Your task to perform on an android device: Go to Android settings Image 0: 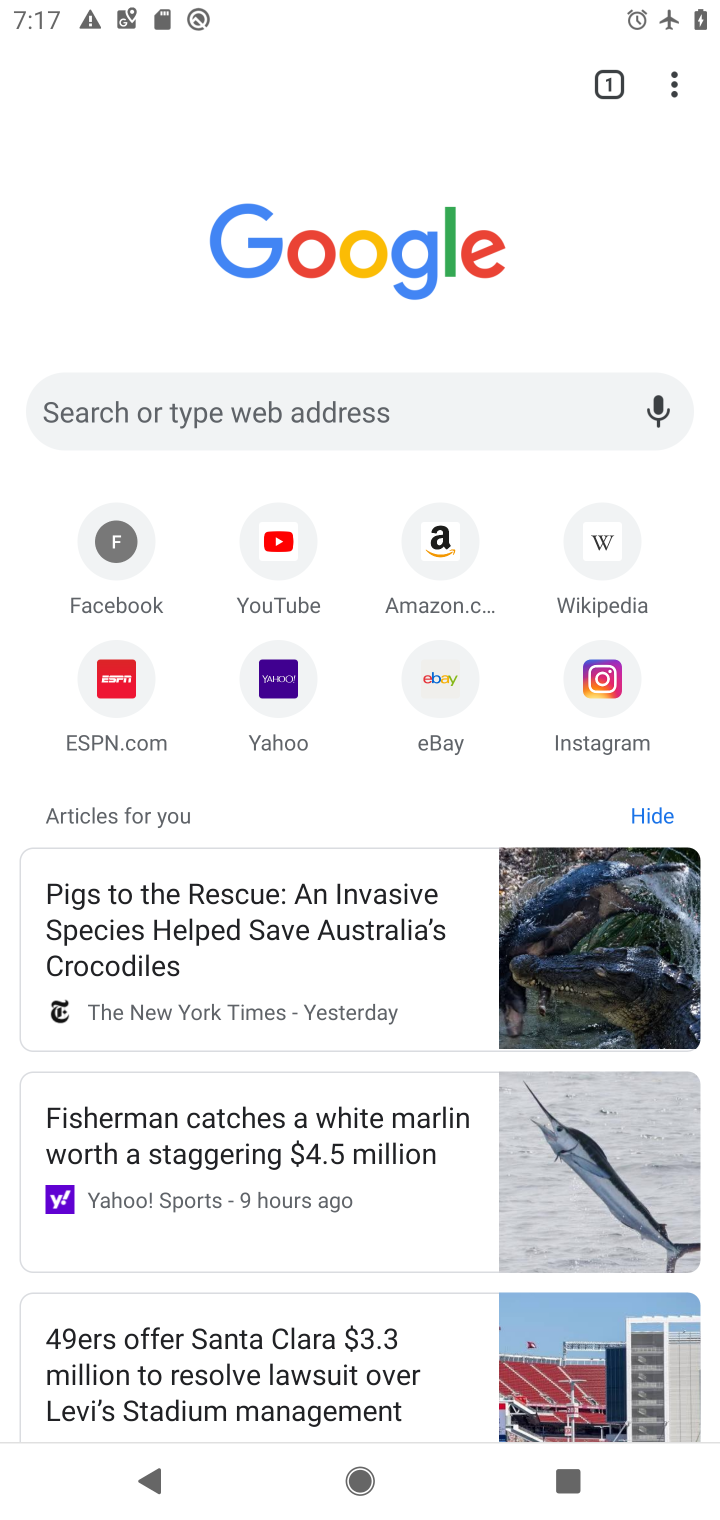
Step 0: press home button
Your task to perform on an android device: Go to Android settings Image 1: 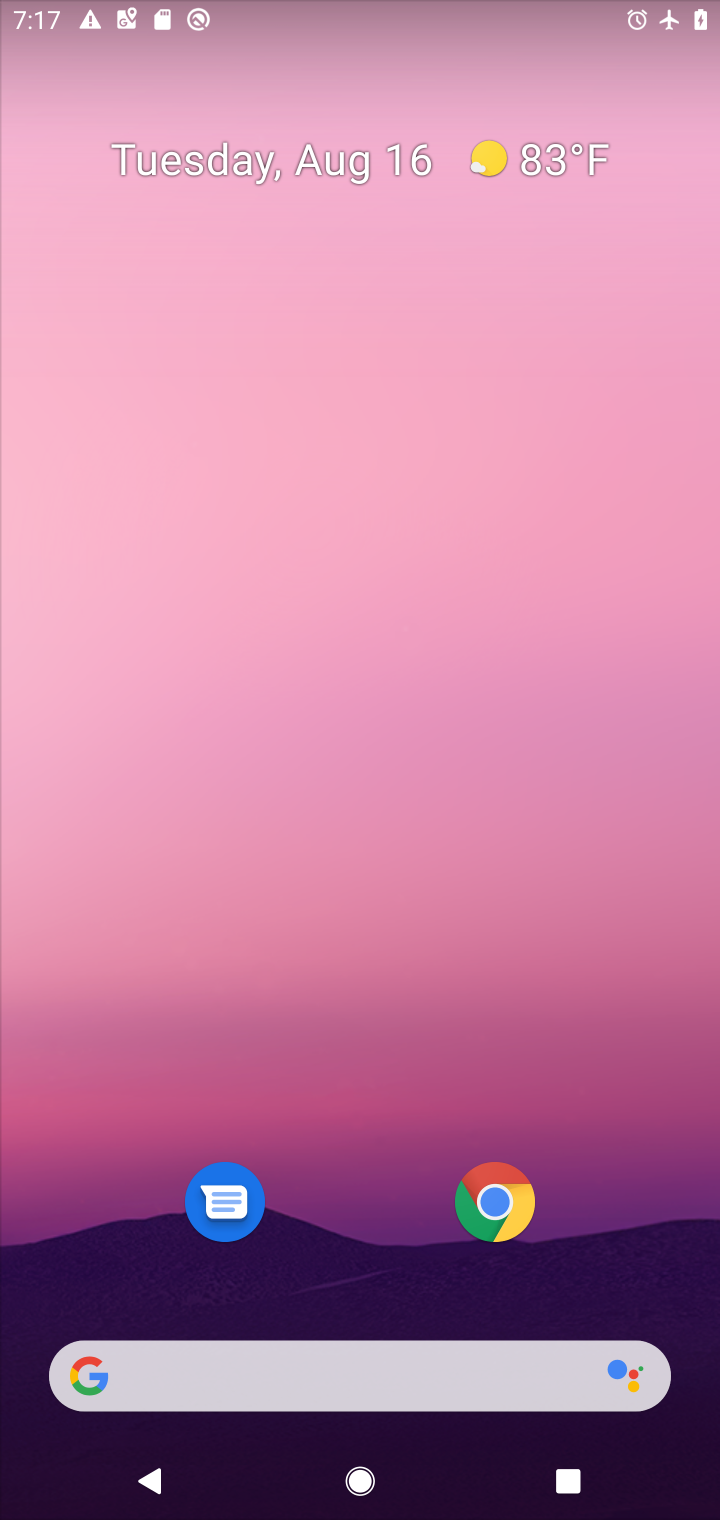
Step 1: drag from (641, 1194) to (335, 0)
Your task to perform on an android device: Go to Android settings Image 2: 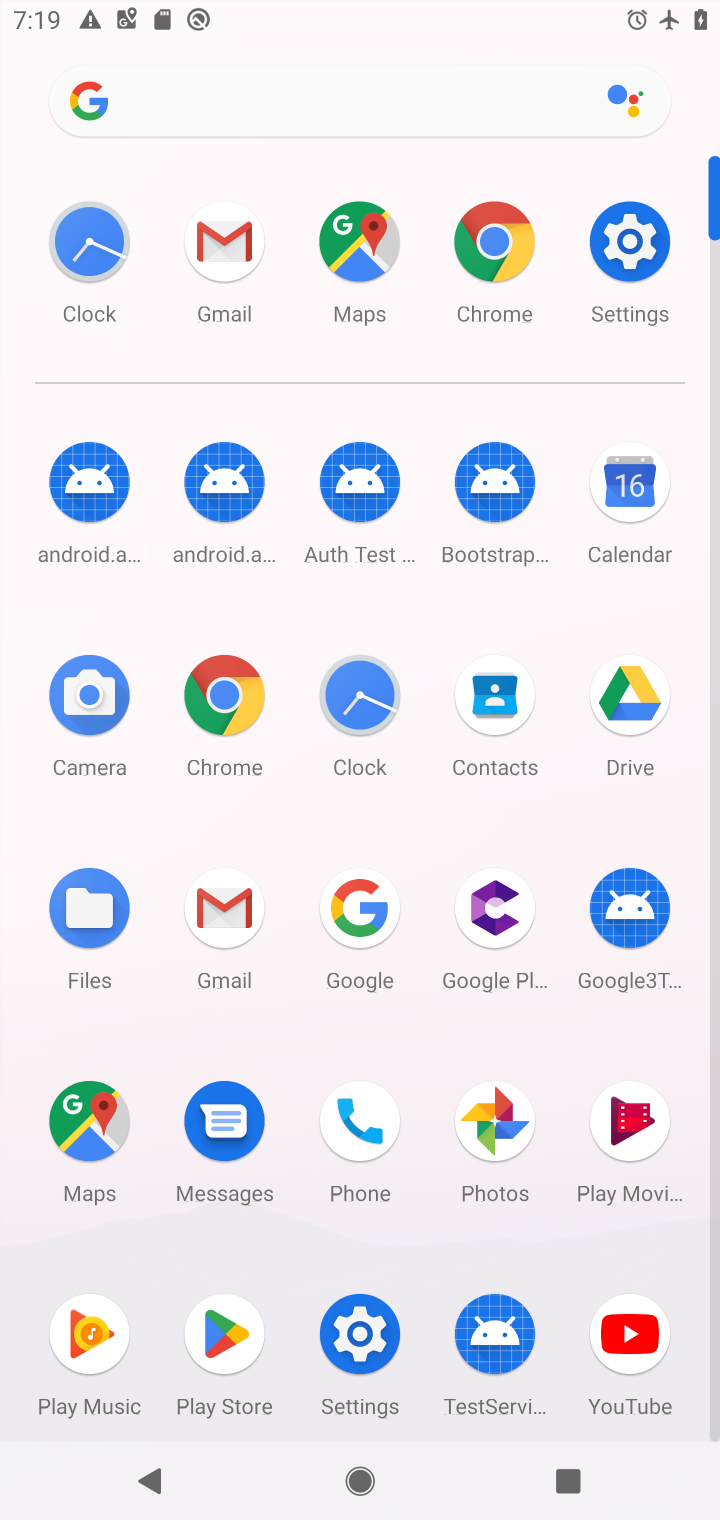
Step 2: click (320, 1337)
Your task to perform on an android device: Go to Android settings Image 3: 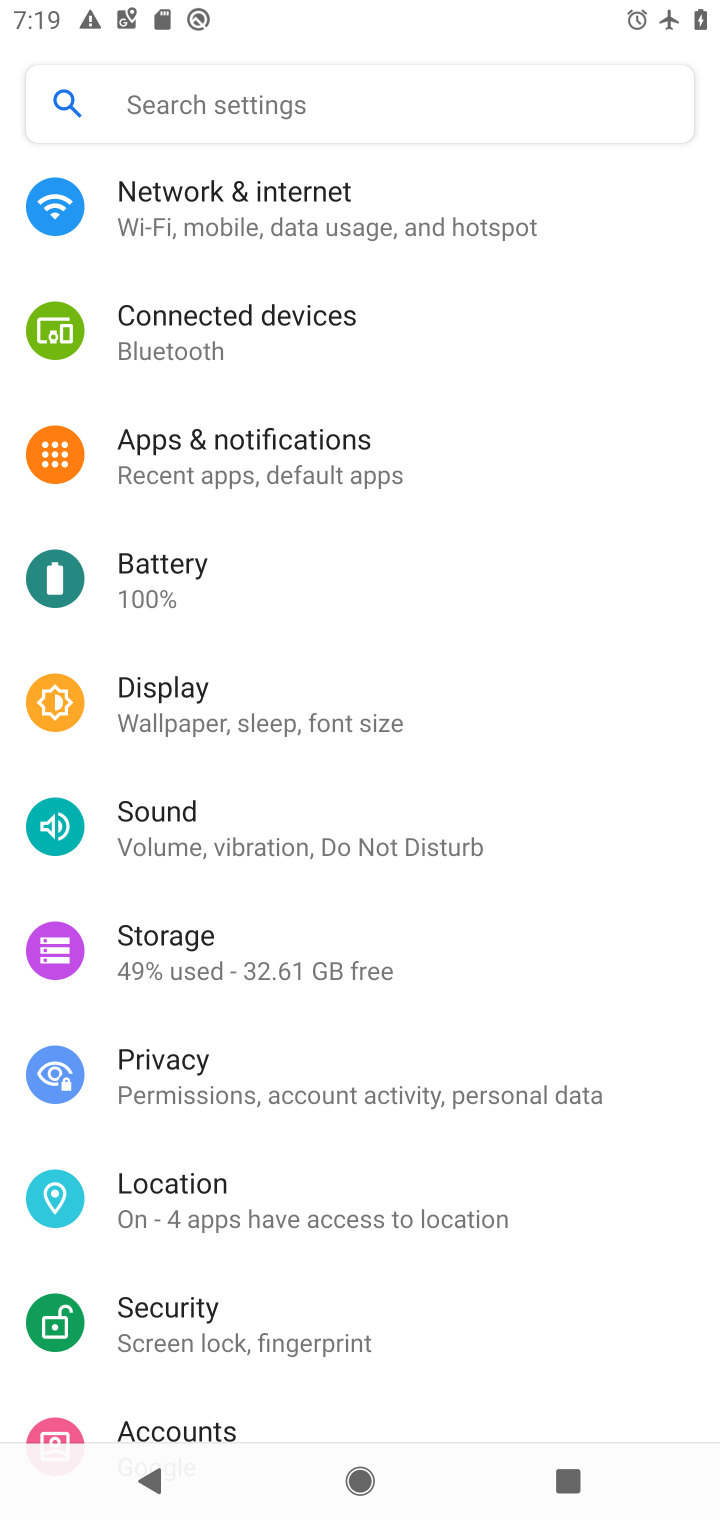
Step 3: task complete